Your task to perform on an android device: Open internet settings Image 0: 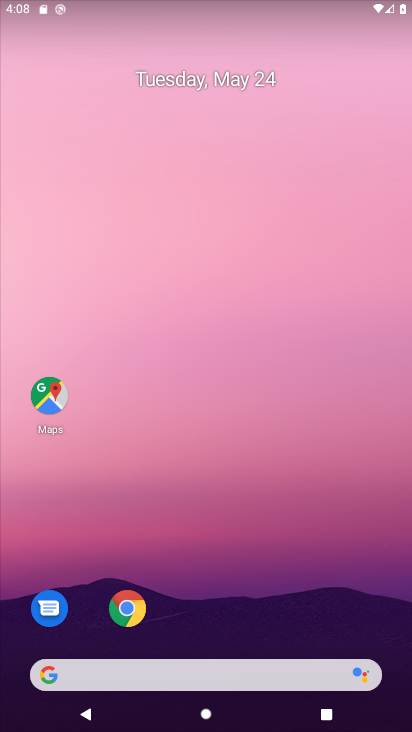
Step 0: drag from (202, 663) to (226, 443)
Your task to perform on an android device: Open internet settings Image 1: 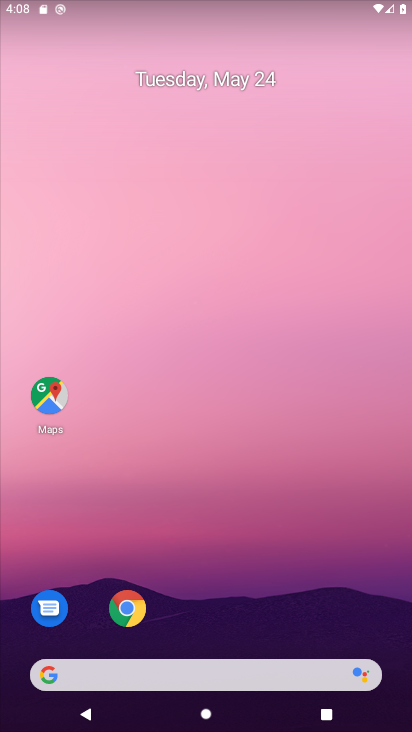
Step 1: drag from (199, 559) to (156, 285)
Your task to perform on an android device: Open internet settings Image 2: 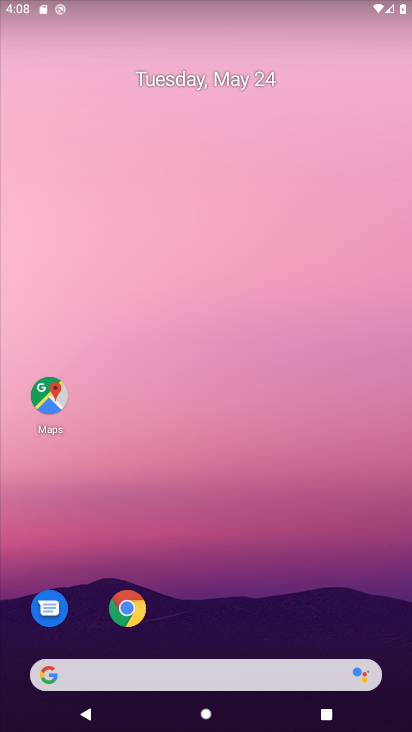
Step 2: drag from (237, 664) to (184, 229)
Your task to perform on an android device: Open internet settings Image 3: 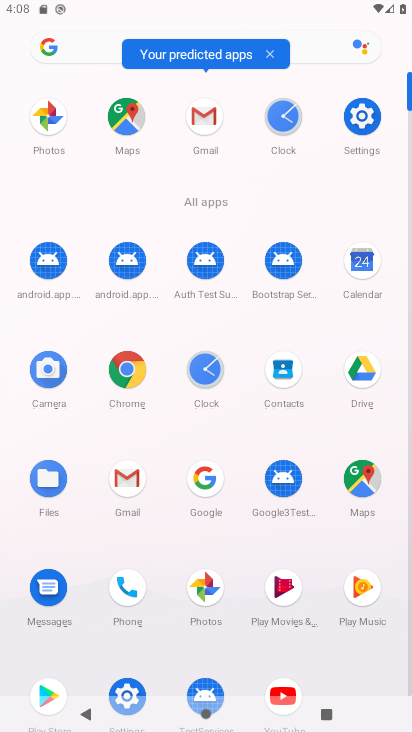
Step 3: click (361, 124)
Your task to perform on an android device: Open internet settings Image 4: 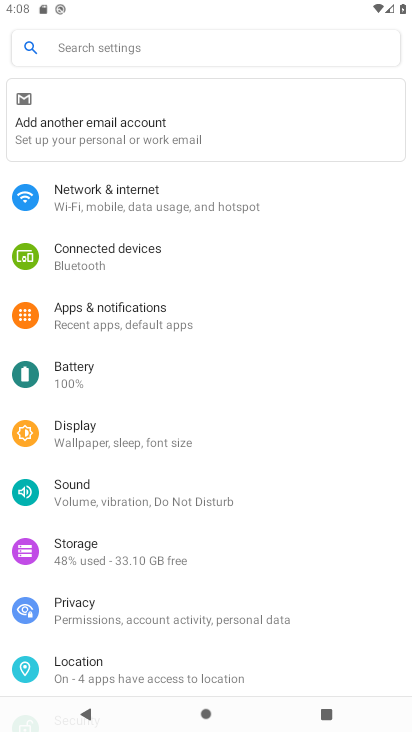
Step 4: click (72, 203)
Your task to perform on an android device: Open internet settings Image 5: 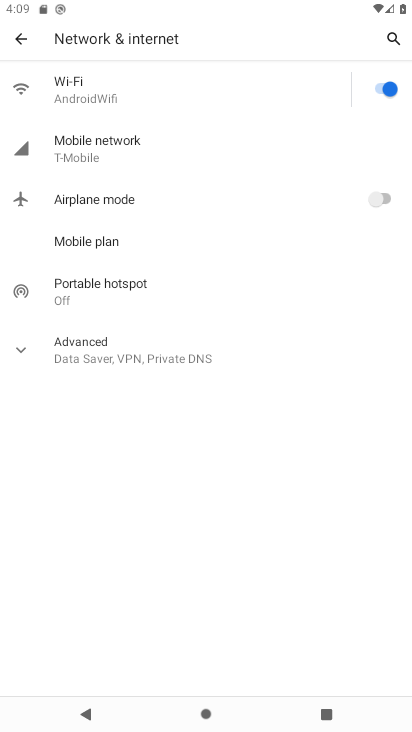
Step 5: click (72, 349)
Your task to perform on an android device: Open internet settings Image 6: 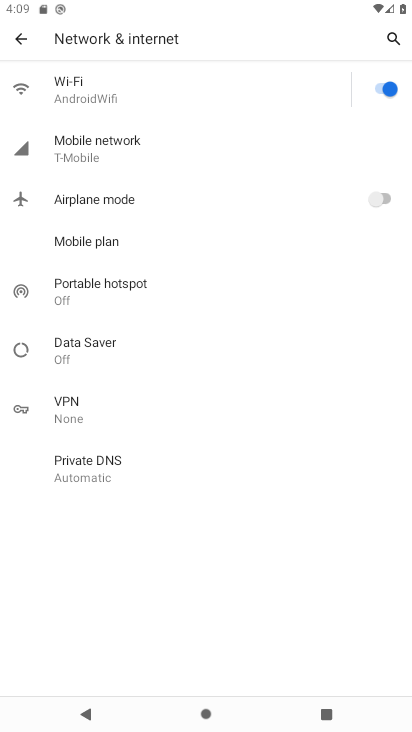
Step 6: click (108, 351)
Your task to perform on an android device: Open internet settings Image 7: 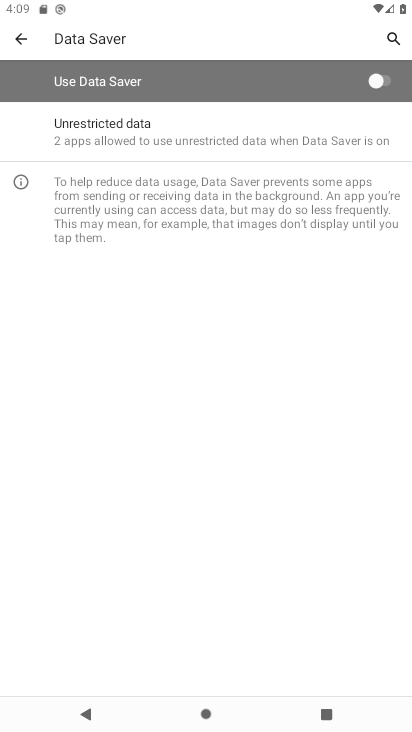
Step 7: task complete